Your task to perform on an android device: Show me recent news Image 0: 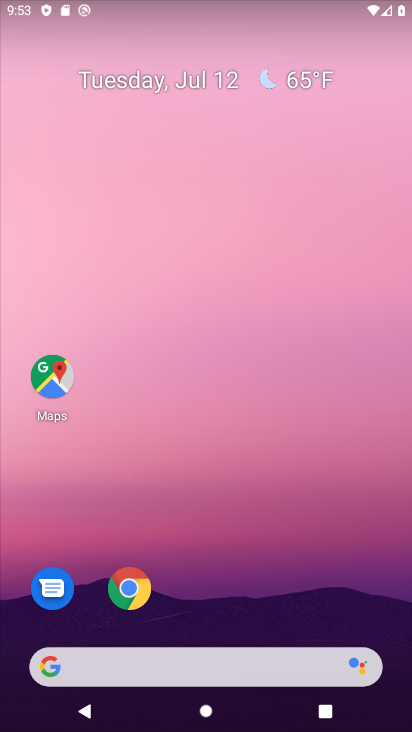
Step 0: click (137, 662)
Your task to perform on an android device: Show me recent news Image 1: 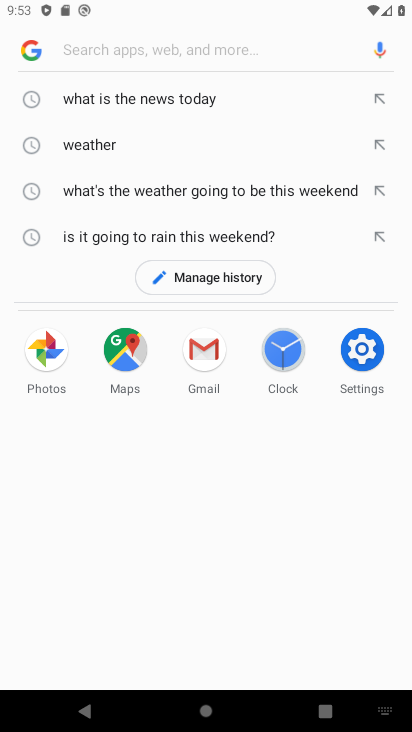
Step 1: type "Show me recent news"
Your task to perform on an android device: Show me recent news Image 2: 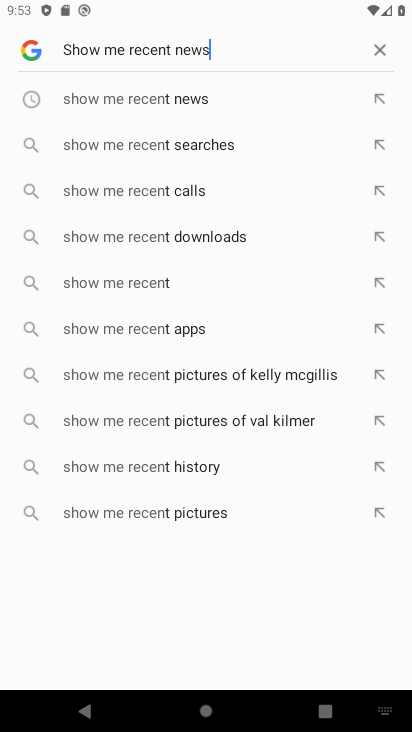
Step 2: type ""
Your task to perform on an android device: Show me recent news Image 3: 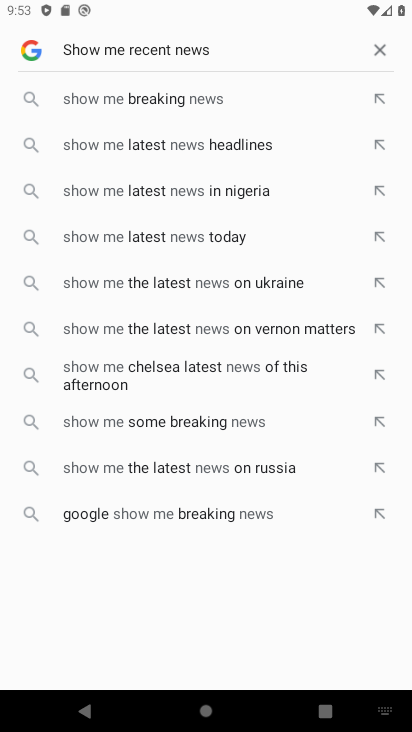
Step 3: type ""
Your task to perform on an android device: Show me recent news Image 4: 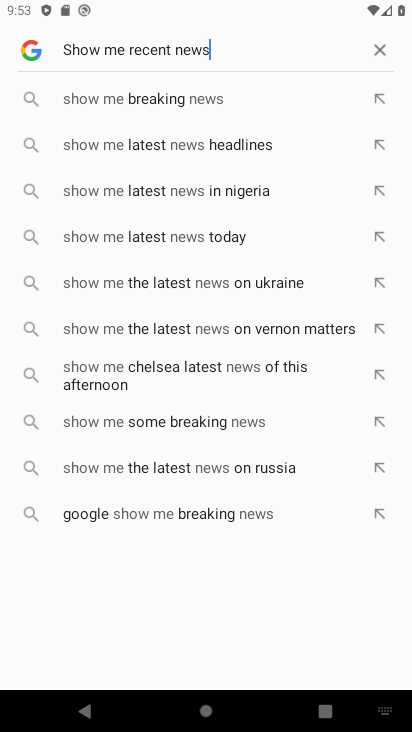
Step 4: type ""
Your task to perform on an android device: Show me recent news Image 5: 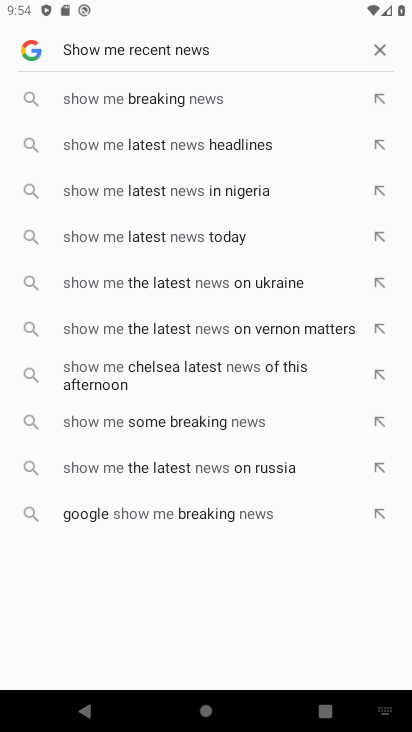
Step 5: task complete